Your task to perform on an android device: Open Google Maps Image 0: 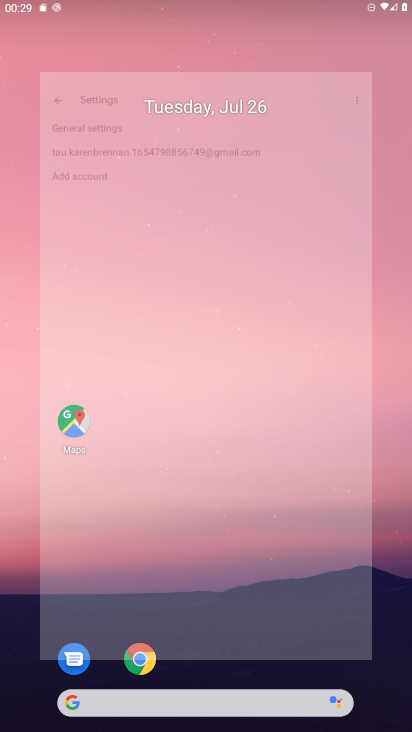
Step 0: press home button
Your task to perform on an android device: Open Google Maps Image 1: 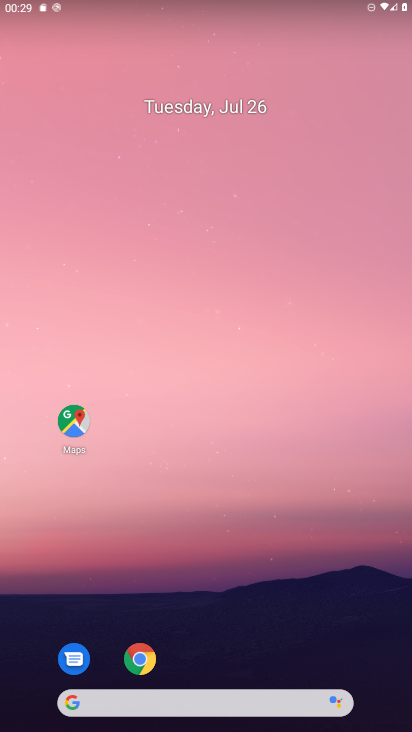
Step 1: click (62, 413)
Your task to perform on an android device: Open Google Maps Image 2: 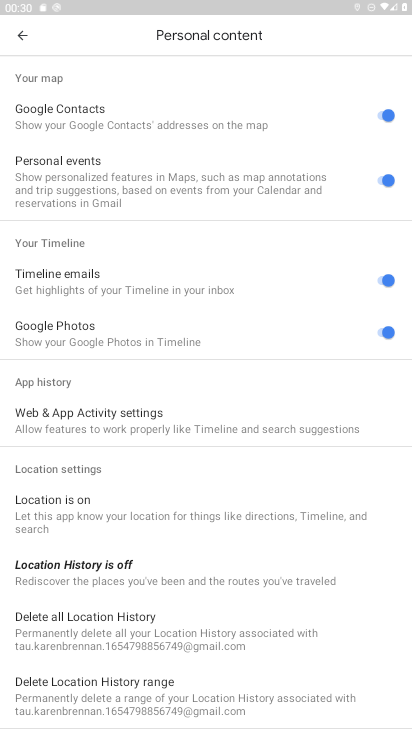
Step 2: task complete